Your task to perform on an android device: Search for vegetarian restaurants on Maps Image 0: 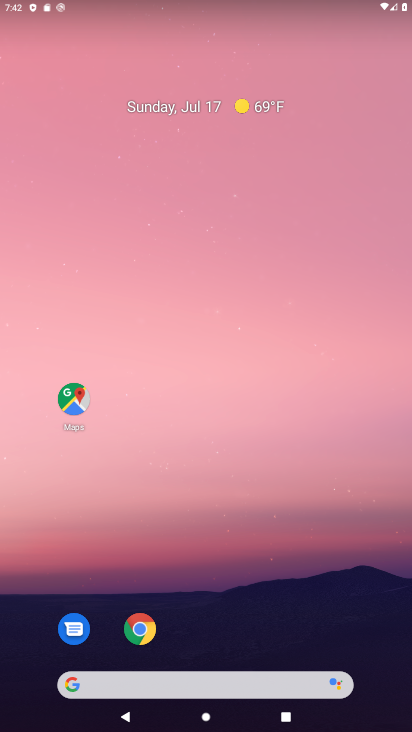
Step 0: drag from (233, 640) to (235, 138)
Your task to perform on an android device: Search for vegetarian restaurants on Maps Image 1: 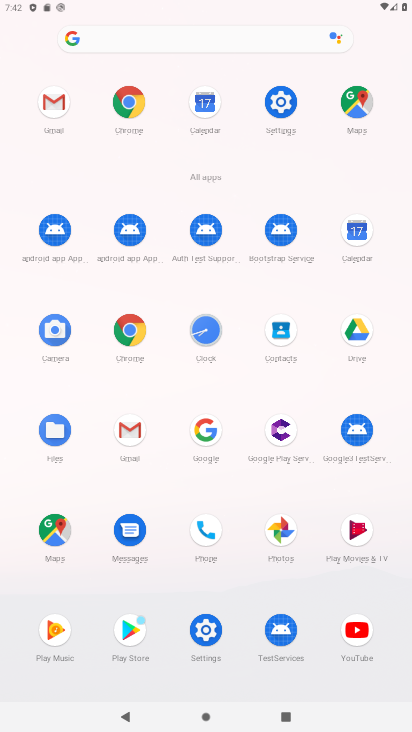
Step 1: click (53, 536)
Your task to perform on an android device: Search for vegetarian restaurants on Maps Image 2: 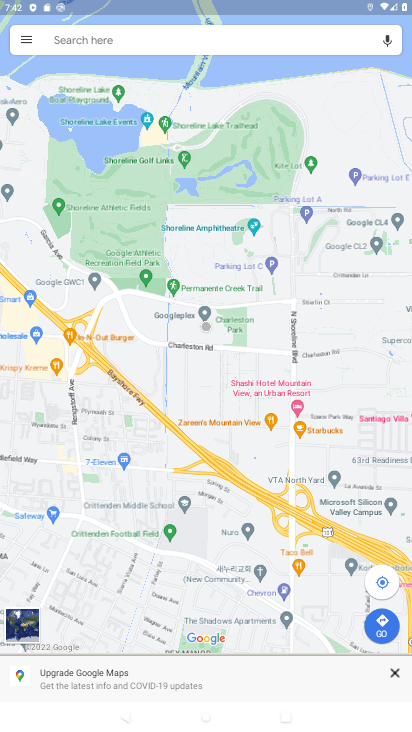
Step 2: click (150, 32)
Your task to perform on an android device: Search for vegetarian restaurants on Maps Image 3: 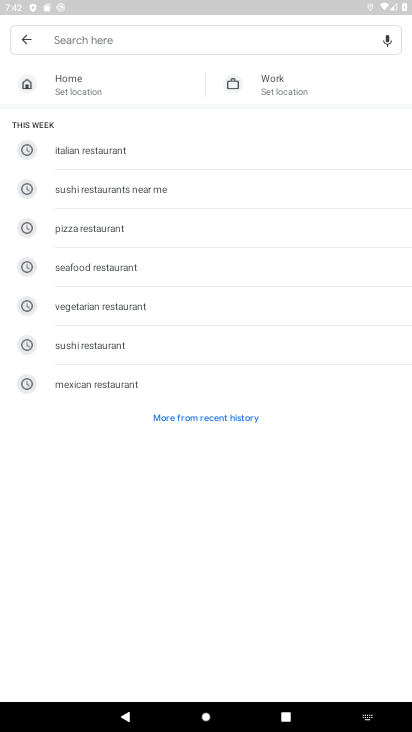
Step 3: click (111, 306)
Your task to perform on an android device: Search for vegetarian restaurants on Maps Image 4: 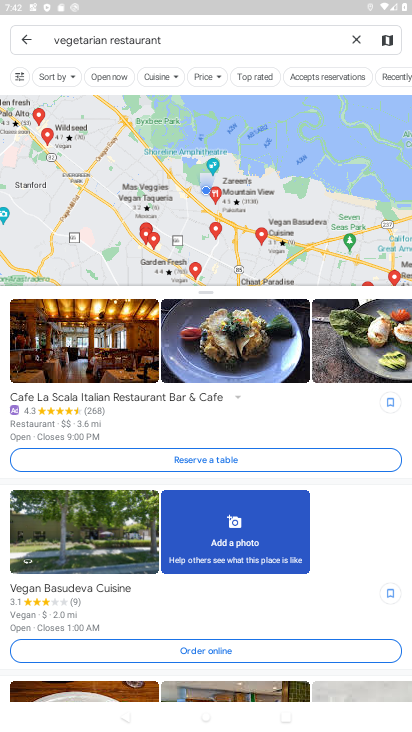
Step 4: task complete